Your task to perform on an android device: turn off location history Image 0: 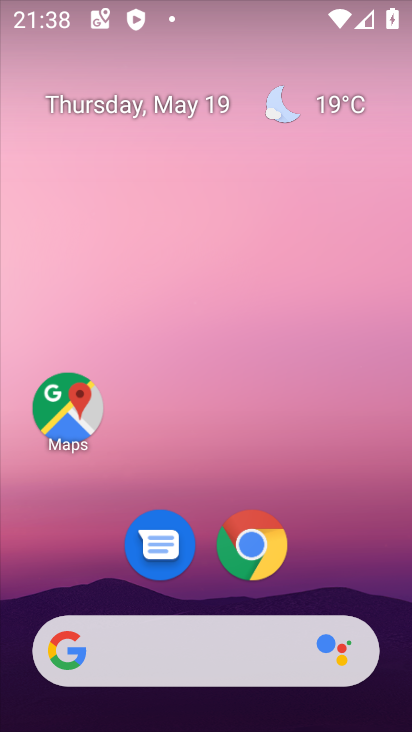
Step 0: drag from (339, 592) to (300, 74)
Your task to perform on an android device: turn off location history Image 1: 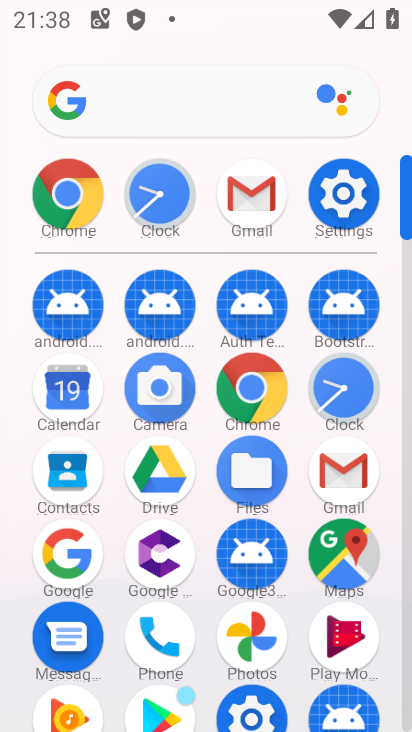
Step 1: click (344, 172)
Your task to perform on an android device: turn off location history Image 2: 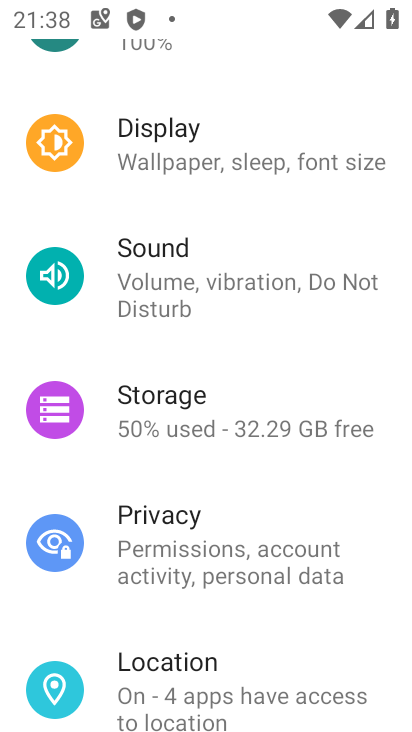
Step 2: drag from (191, 564) to (219, 298)
Your task to perform on an android device: turn off location history Image 3: 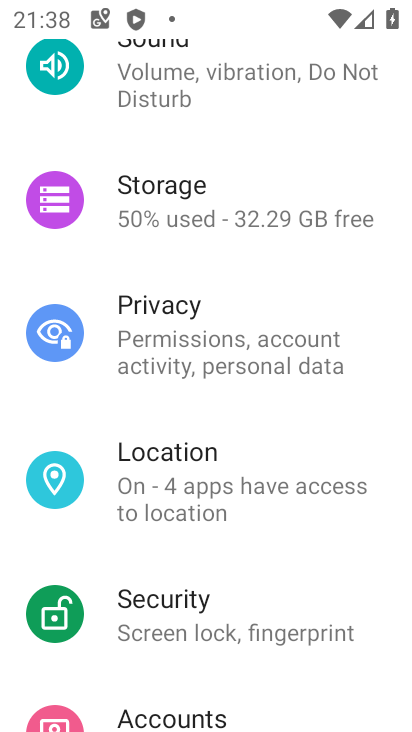
Step 3: click (226, 542)
Your task to perform on an android device: turn off location history Image 4: 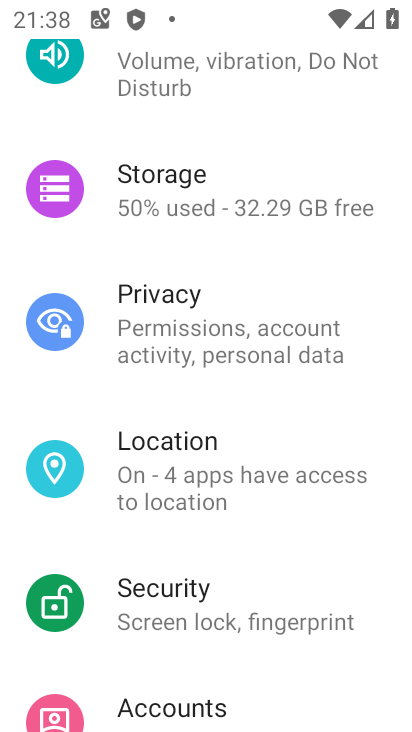
Step 4: click (226, 514)
Your task to perform on an android device: turn off location history Image 5: 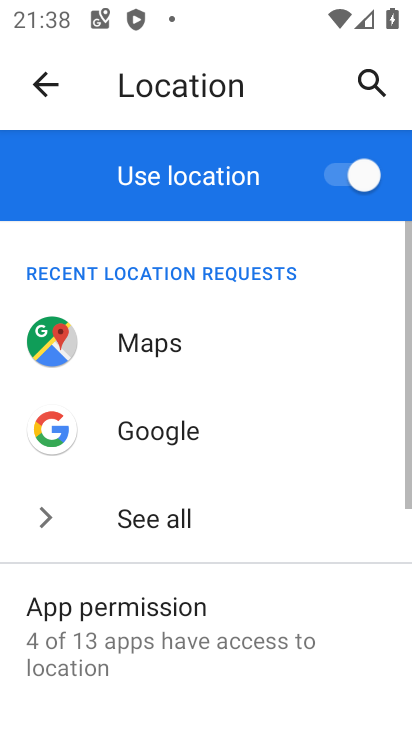
Step 5: drag from (185, 648) to (230, 254)
Your task to perform on an android device: turn off location history Image 6: 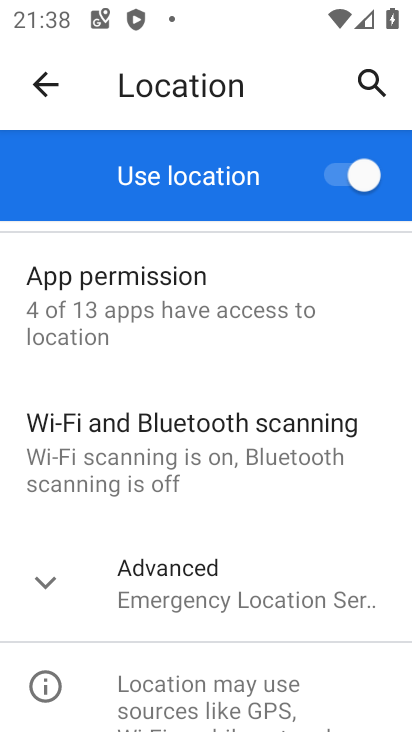
Step 6: click (210, 550)
Your task to perform on an android device: turn off location history Image 7: 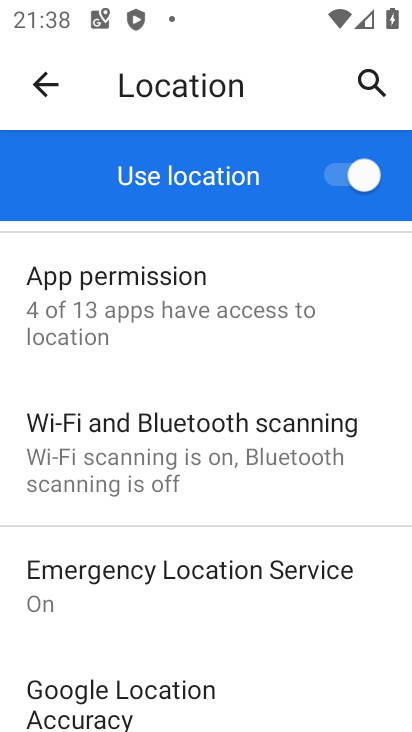
Step 7: drag from (196, 599) to (226, 131)
Your task to perform on an android device: turn off location history Image 8: 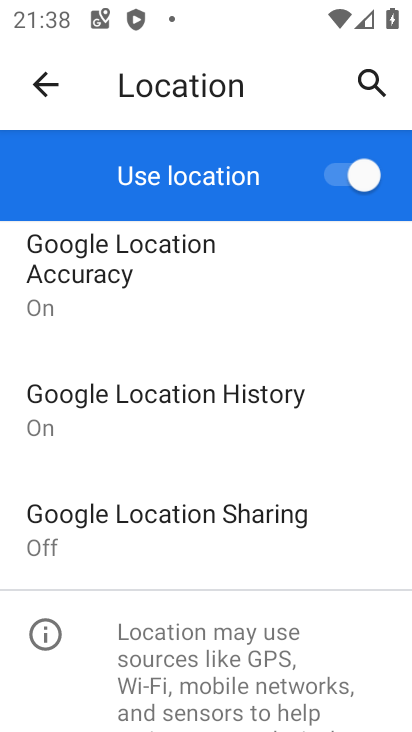
Step 8: click (239, 453)
Your task to perform on an android device: turn off location history Image 9: 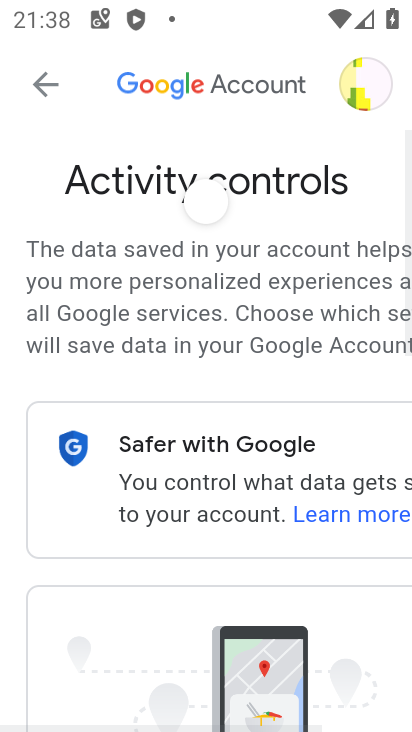
Step 9: task complete